Your task to perform on an android device: Open Wikipedia Image 0: 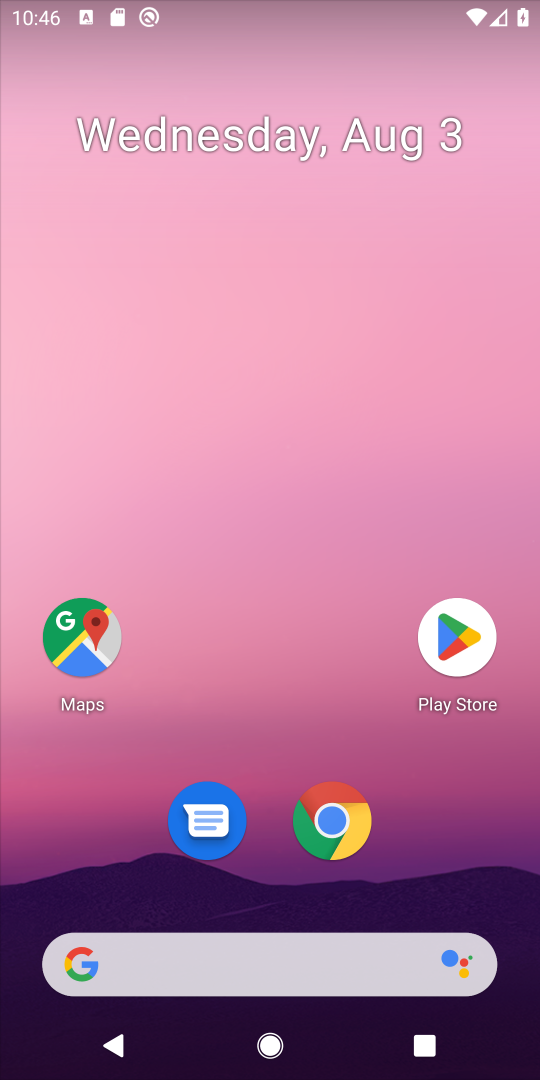
Step 0: drag from (281, 951) to (270, 5)
Your task to perform on an android device: Open Wikipedia Image 1: 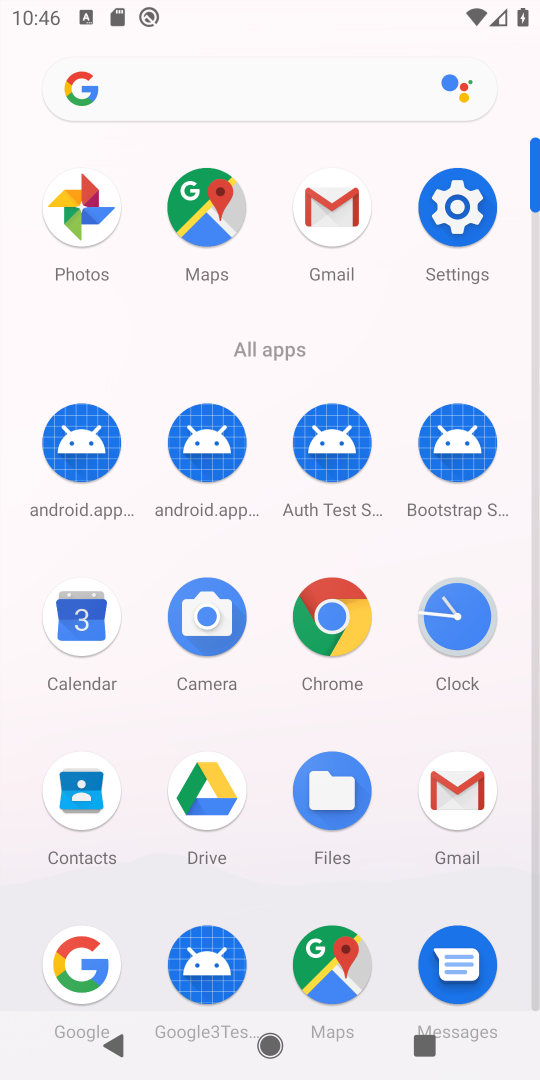
Step 1: click (342, 638)
Your task to perform on an android device: Open Wikipedia Image 2: 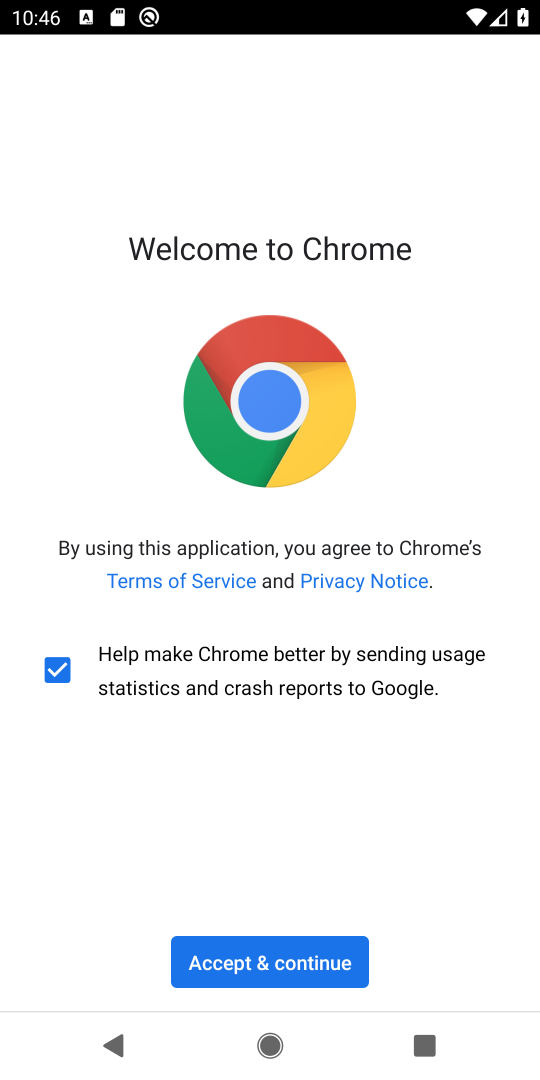
Step 2: click (280, 978)
Your task to perform on an android device: Open Wikipedia Image 3: 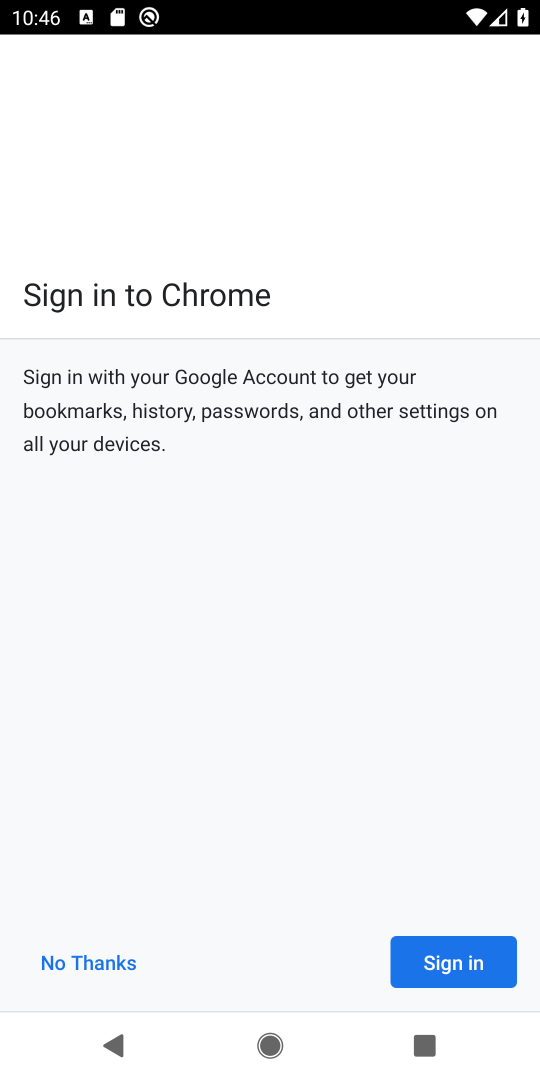
Step 3: click (104, 961)
Your task to perform on an android device: Open Wikipedia Image 4: 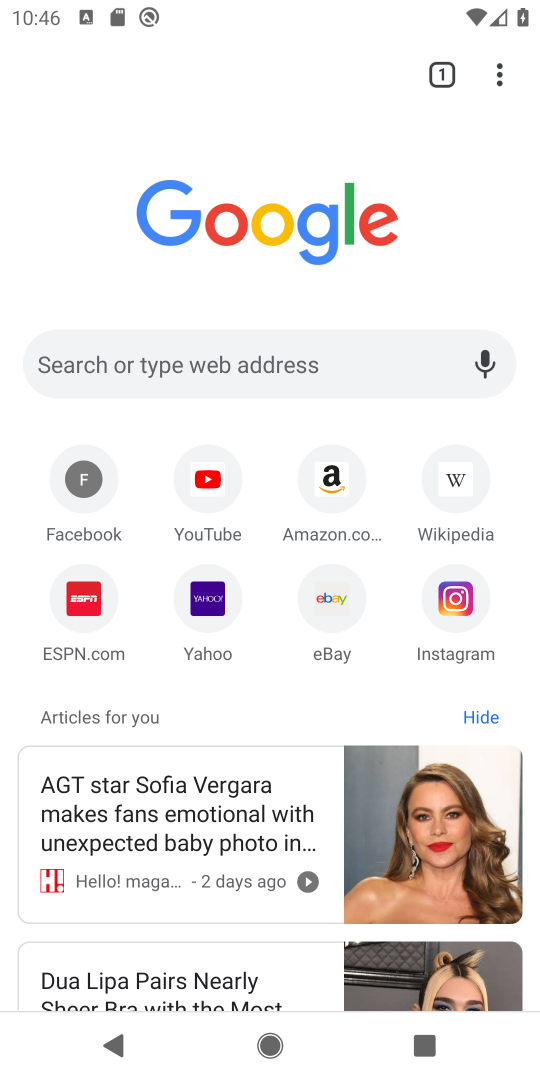
Step 4: click (463, 480)
Your task to perform on an android device: Open Wikipedia Image 5: 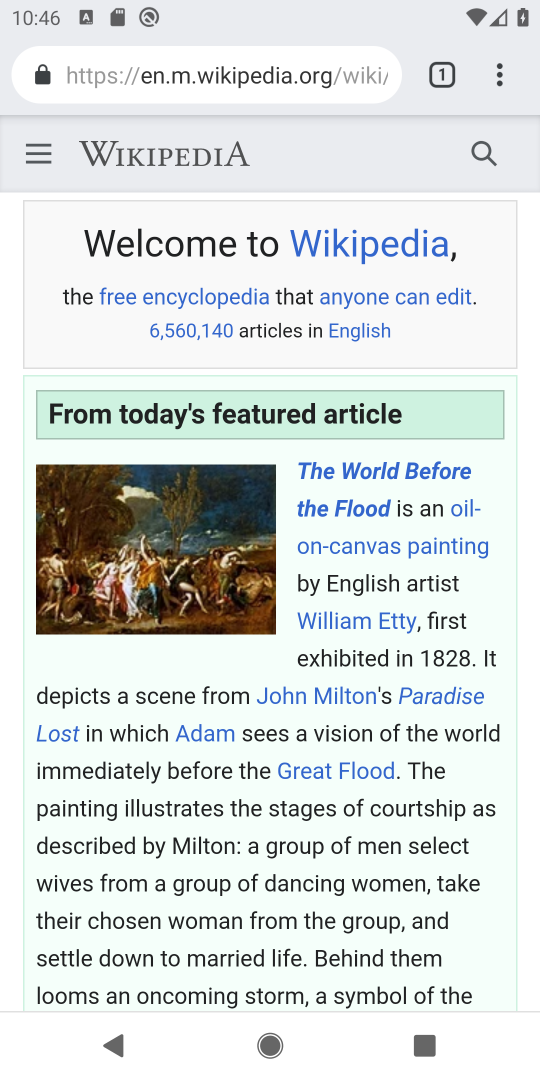
Step 5: task complete